Your task to perform on an android device: see tabs open on other devices in the chrome app Image 0: 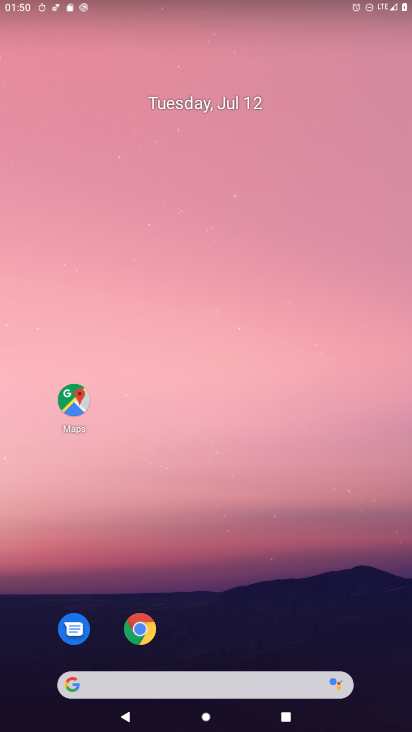
Step 0: click (142, 623)
Your task to perform on an android device: see tabs open on other devices in the chrome app Image 1: 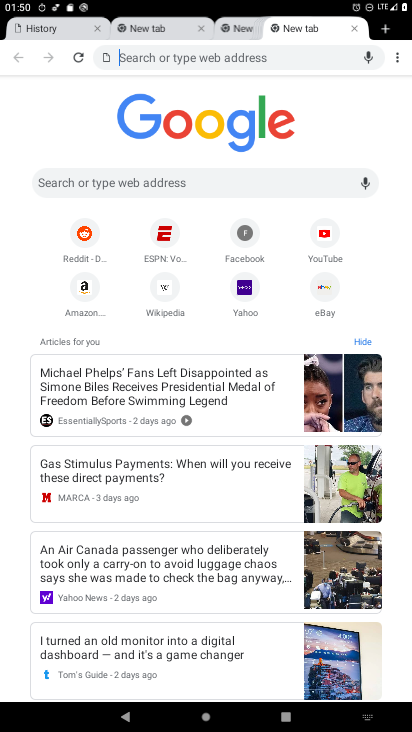
Step 1: click (383, 24)
Your task to perform on an android device: see tabs open on other devices in the chrome app Image 2: 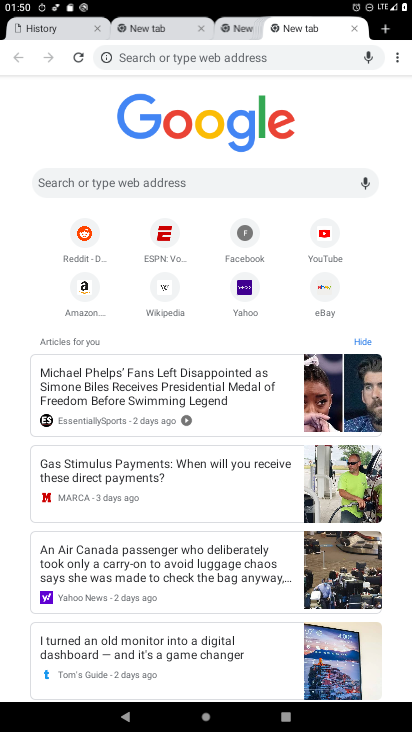
Step 2: task complete